Your task to perform on an android device: snooze an email in the gmail app Image 0: 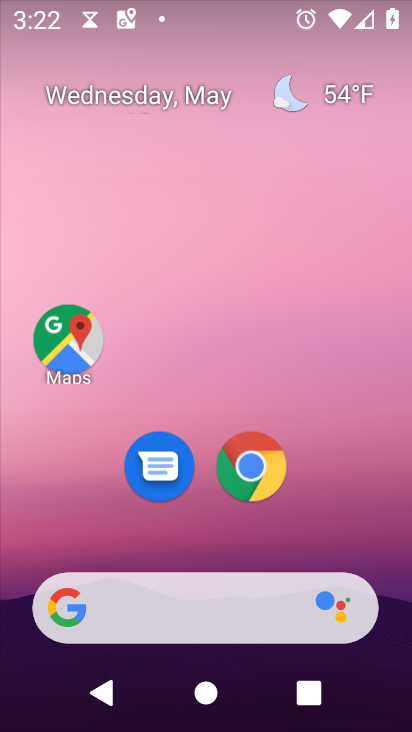
Step 0: drag from (397, 531) to (306, 199)
Your task to perform on an android device: snooze an email in the gmail app Image 1: 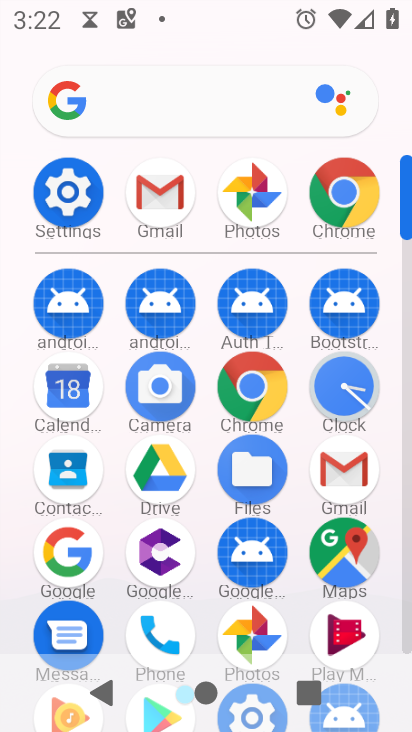
Step 1: click (175, 168)
Your task to perform on an android device: snooze an email in the gmail app Image 2: 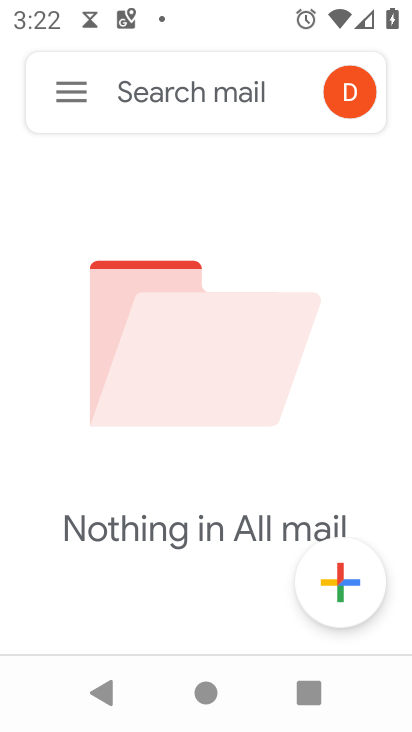
Step 2: click (71, 95)
Your task to perform on an android device: snooze an email in the gmail app Image 3: 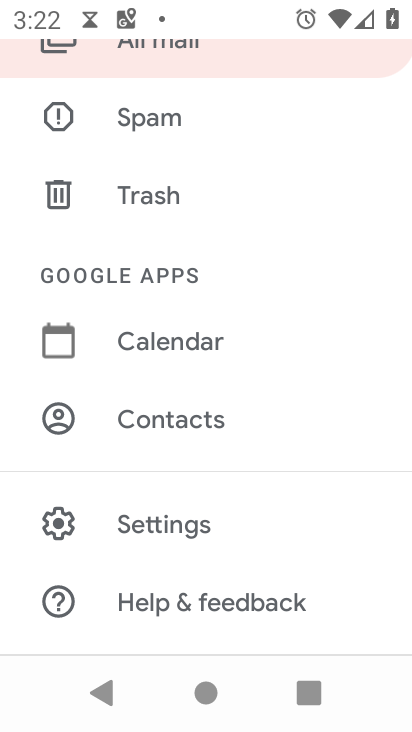
Step 3: click (149, 74)
Your task to perform on an android device: snooze an email in the gmail app Image 4: 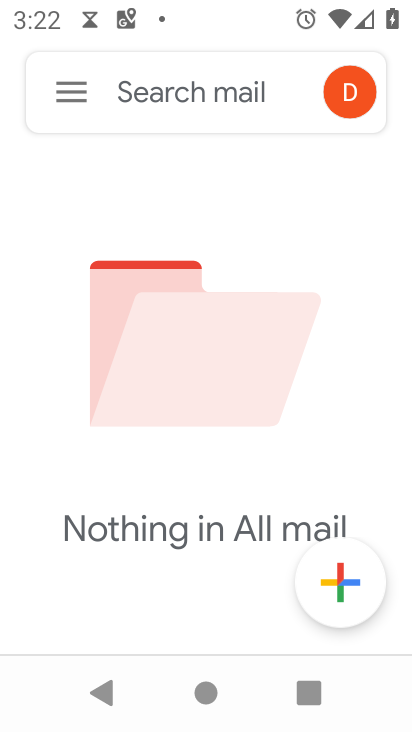
Step 4: task complete